Your task to perform on an android device: Open settings Image 0: 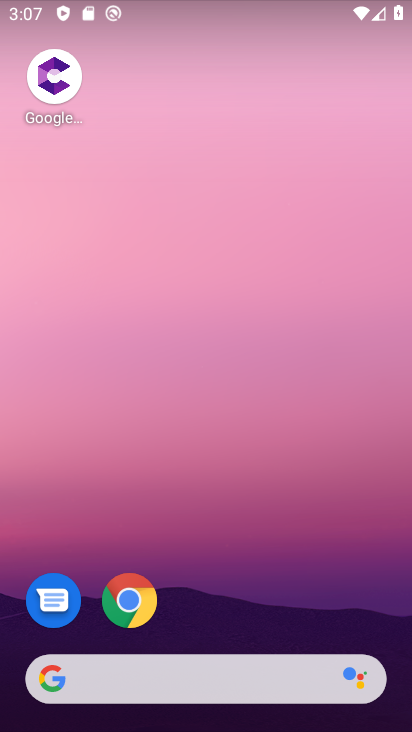
Step 0: drag from (241, 640) to (194, 266)
Your task to perform on an android device: Open settings Image 1: 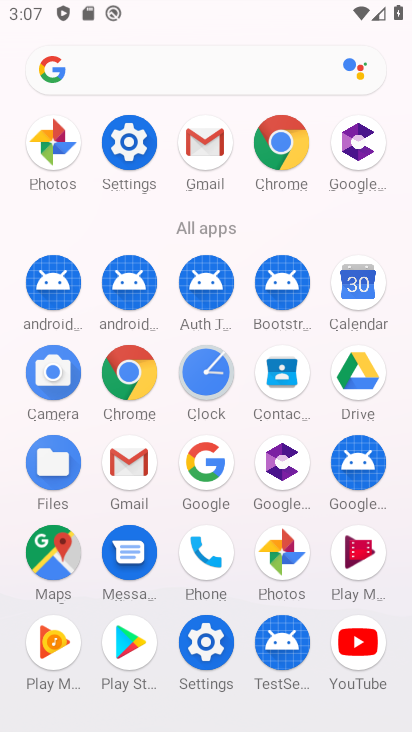
Step 1: click (132, 128)
Your task to perform on an android device: Open settings Image 2: 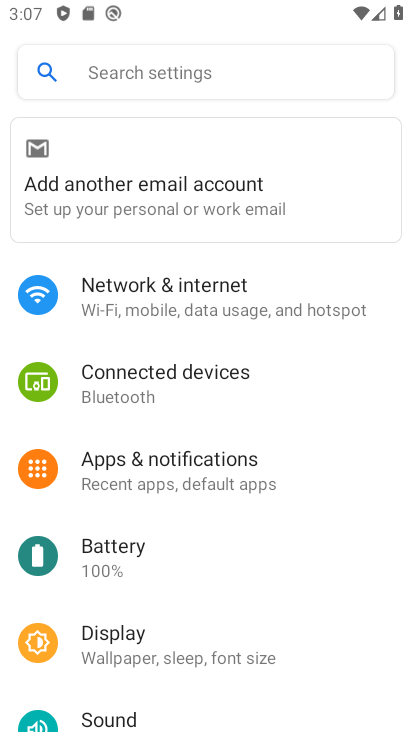
Step 2: task complete